Your task to perform on an android device: remove spam from my inbox in the gmail app Image 0: 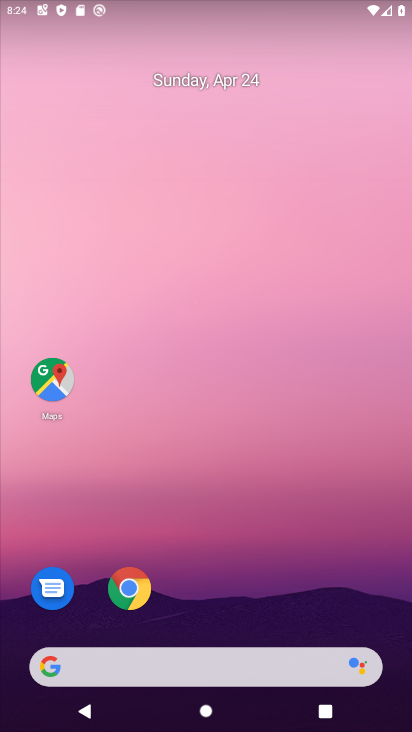
Step 0: drag from (246, 592) to (239, 95)
Your task to perform on an android device: remove spam from my inbox in the gmail app Image 1: 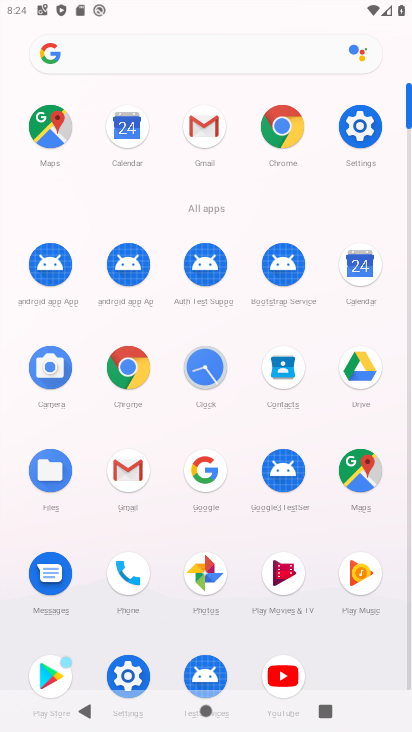
Step 1: click (126, 469)
Your task to perform on an android device: remove spam from my inbox in the gmail app Image 2: 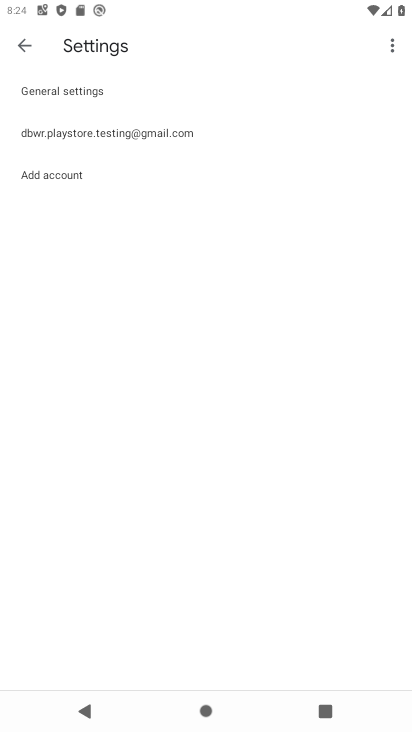
Step 2: press back button
Your task to perform on an android device: remove spam from my inbox in the gmail app Image 3: 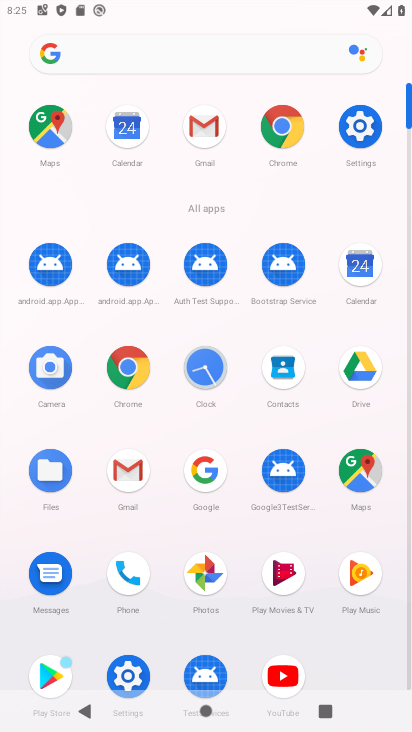
Step 3: click (127, 463)
Your task to perform on an android device: remove spam from my inbox in the gmail app Image 4: 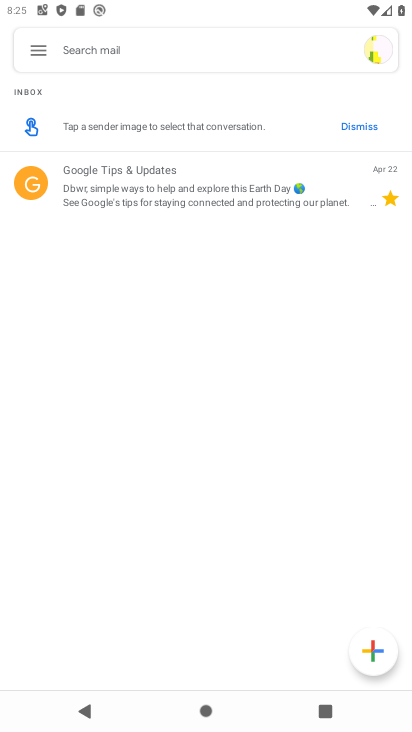
Step 4: click (40, 53)
Your task to perform on an android device: remove spam from my inbox in the gmail app Image 5: 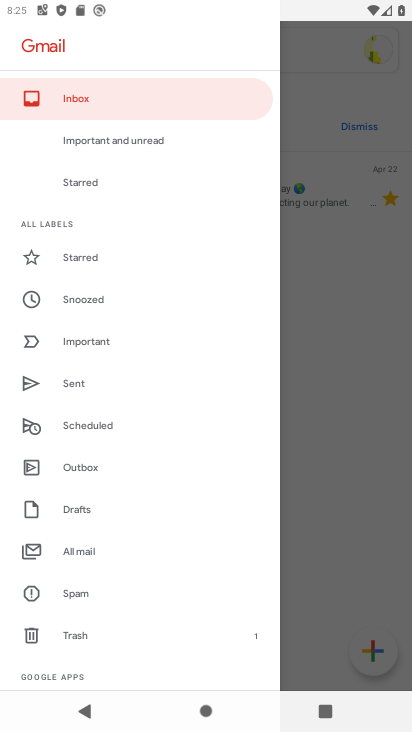
Step 5: click (72, 590)
Your task to perform on an android device: remove spam from my inbox in the gmail app Image 6: 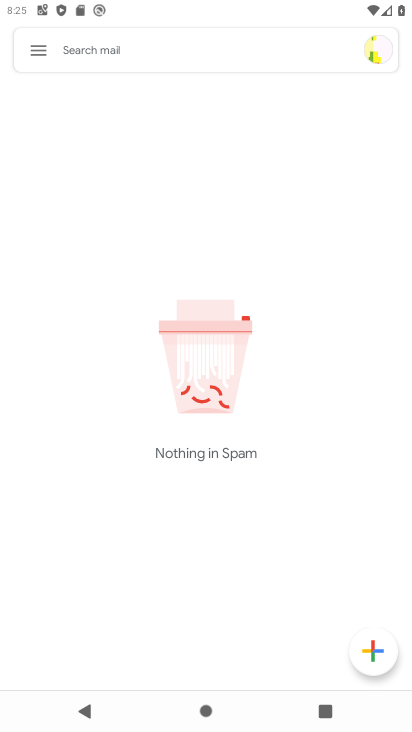
Step 6: task complete